Your task to perform on an android device: Go to internet settings Image 0: 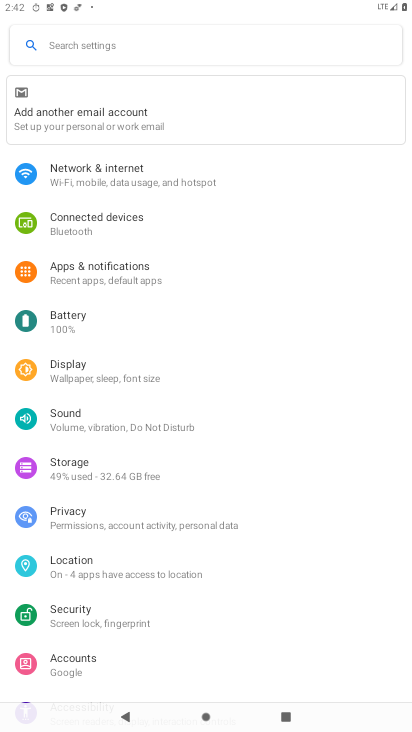
Step 0: click (123, 180)
Your task to perform on an android device: Go to internet settings Image 1: 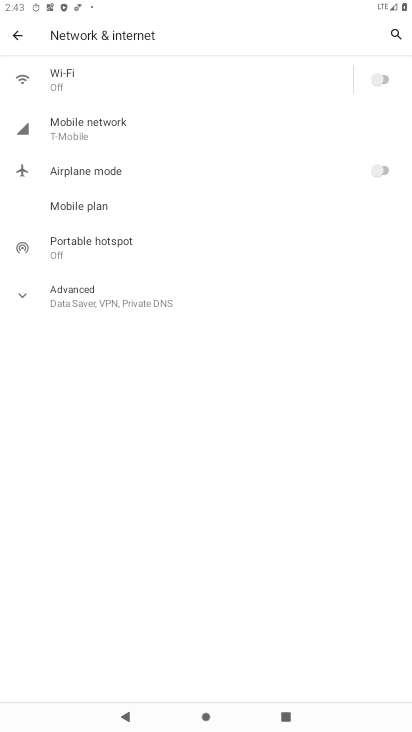
Step 1: drag from (170, 395) to (198, 205)
Your task to perform on an android device: Go to internet settings Image 2: 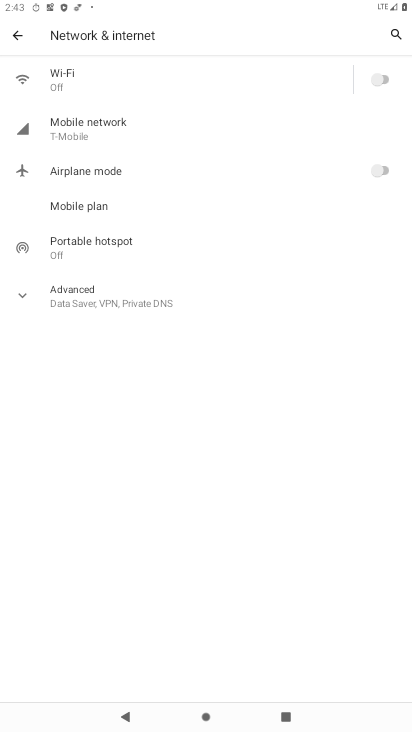
Step 2: drag from (229, 522) to (241, 444)
Your task to perform on an android device: Go to internet settings Image 3: 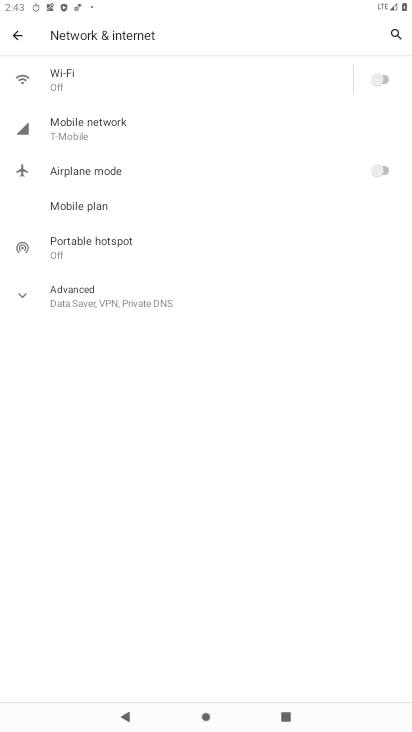
Step 3: click (185, 446)
Your task to perform on an android device: Go to internet settings Image 4: 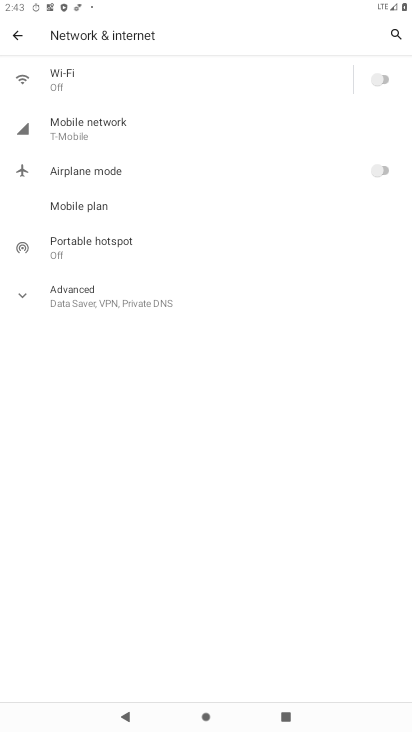
Step 4: click (216, 296)
Your task to perform on an android device: Go to internet settings Image 5: 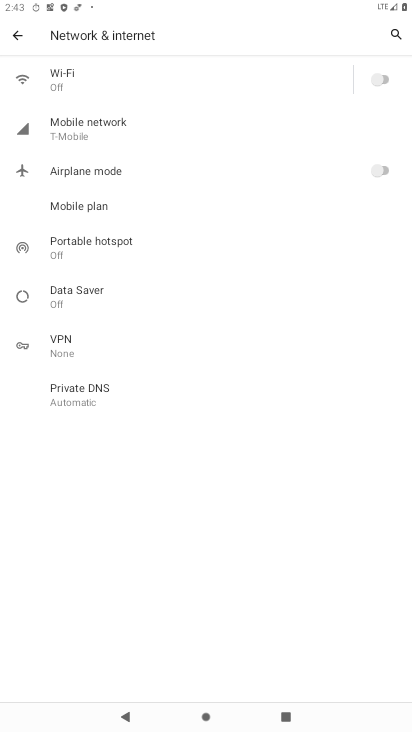
Step 5: task complete